Your task to perform on an android device: Open Maps and search for coffee Image 0: 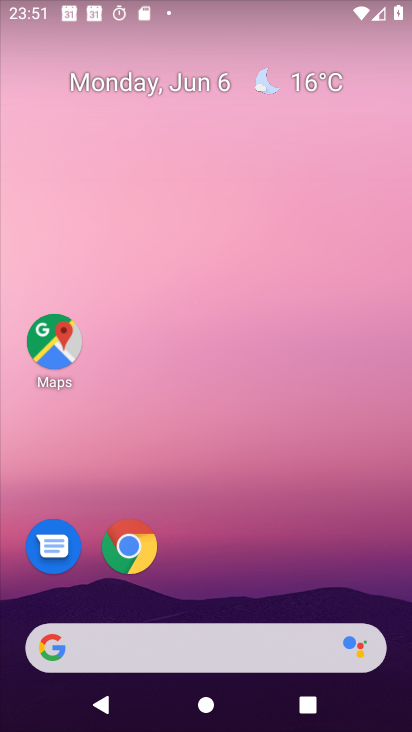
Step 0: click (65, 350)
Your task to perform on an android device: Open Maps and search for coffee Image 1: 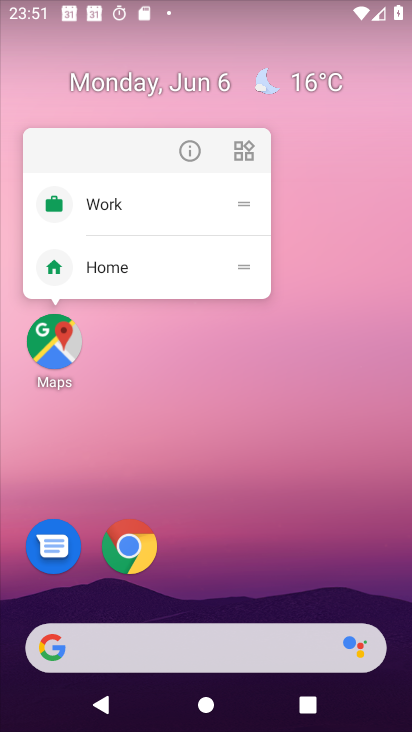
Step 1: click (63, 321)
Your task to perform on an android device: Open Maps and search for coffee Image 2: 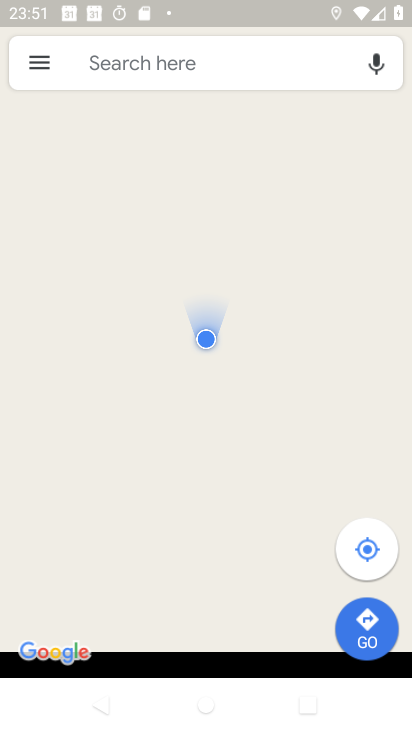
Step 2: click (170, 64)
Your task to perform on an android device: Open Maps and search for coffee Image 3: 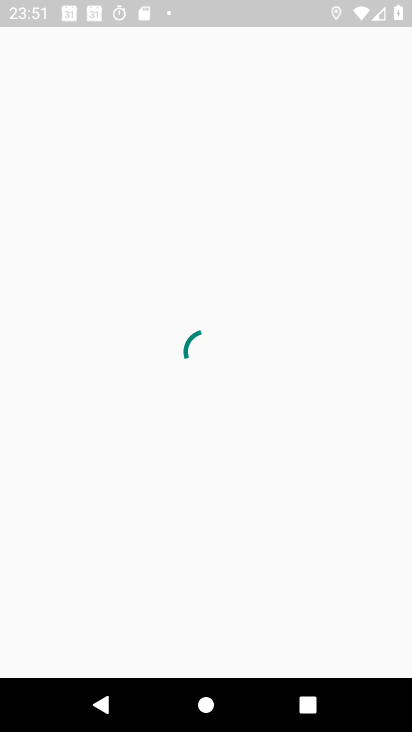
Step 3: type "coffee"
Your task to perform on an android device: Open Maps and search for coffee Image 4: 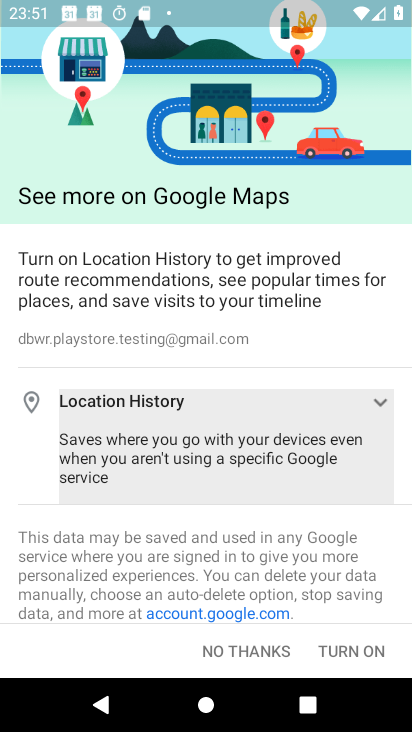
Step 4: click (247, 657)
Your task to perform on an android device: Open Maps and search for coffee Image 5: 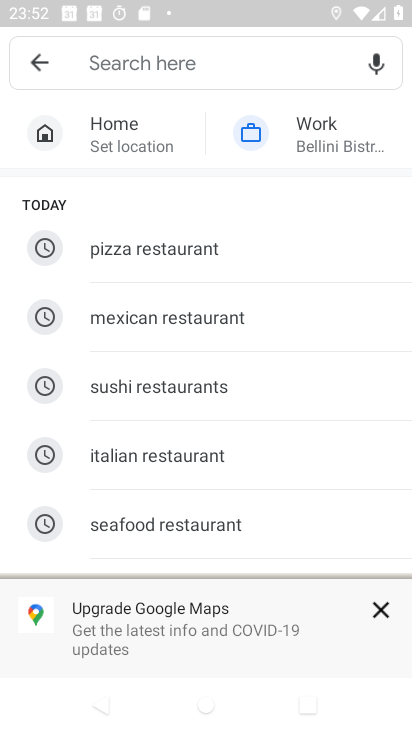
Step 5: click (376, 604)
Your task to perform on an android device: Open Maps and search for coffee Image 6: 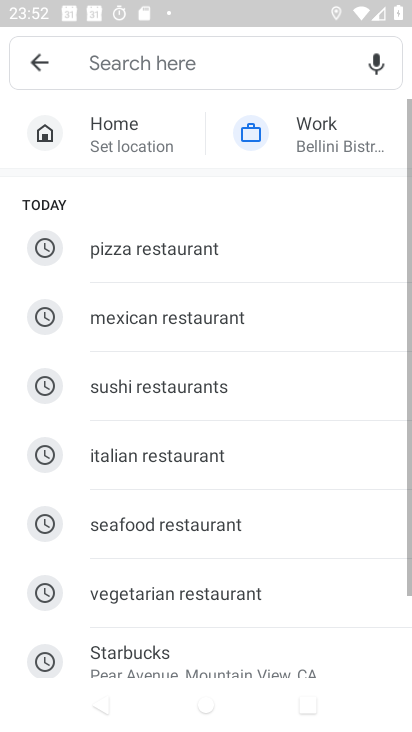
Step 6: click (170, 58)
Your task to perform on an android device: Open Maps and search for coffee Image 7: 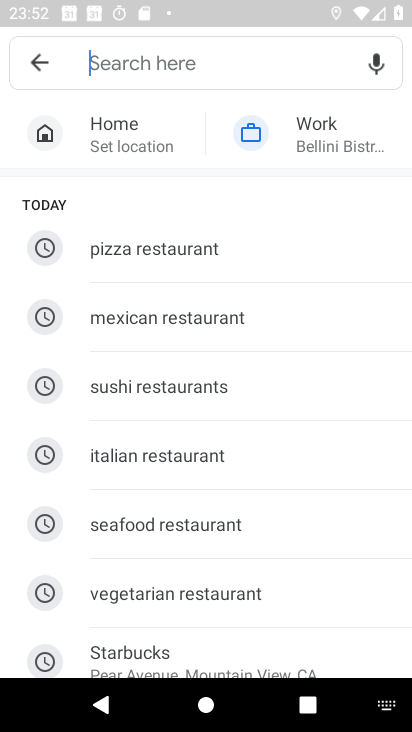
Step 7: type "coffee"
Your task to perform on an android device: Open Maps and search for coffee Image 8: 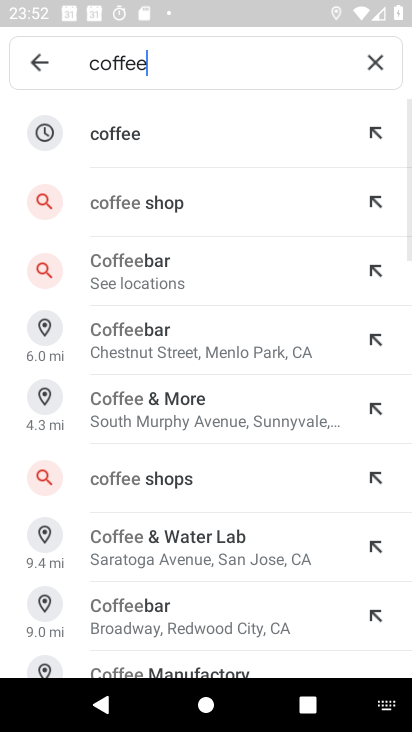
Step 8: click (170, 134)
Your task to perform on an android device: Open Maps and search for coffee Image 9: 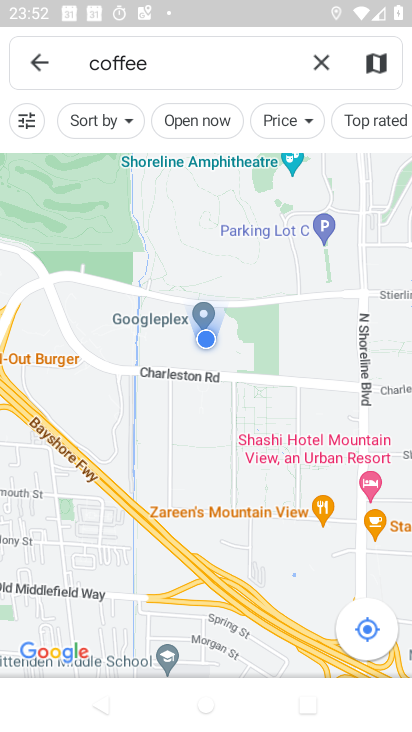
Step 9: task complete